Your task to perform on an android device: clear history in the chrome app Image 0: 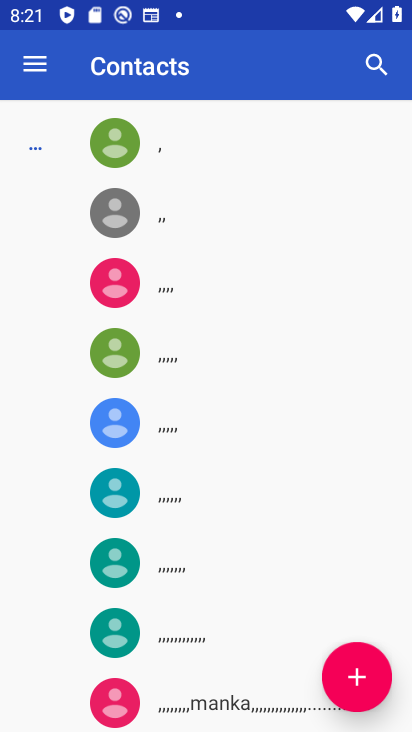
Step 0: drag from (368, 615) to (357, 77)
Your task to perform on an android device: clear history in the chrome app Image 1: 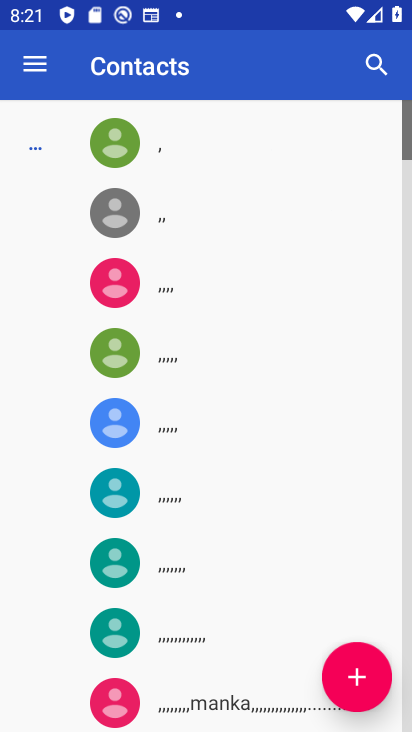
Step 1: press home button
Your task to perform on an android device: clear history in the chrome app Image 2: 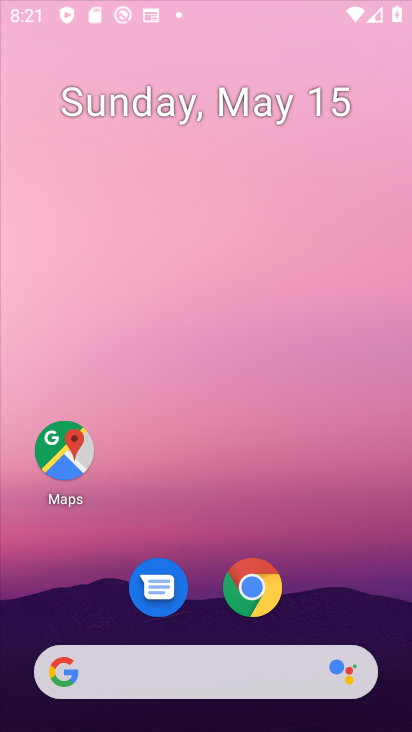
Step 2: drag from (323, 631) to (233, 65)
Your task to perform on an android device: clear history in the chrome app Image 3: 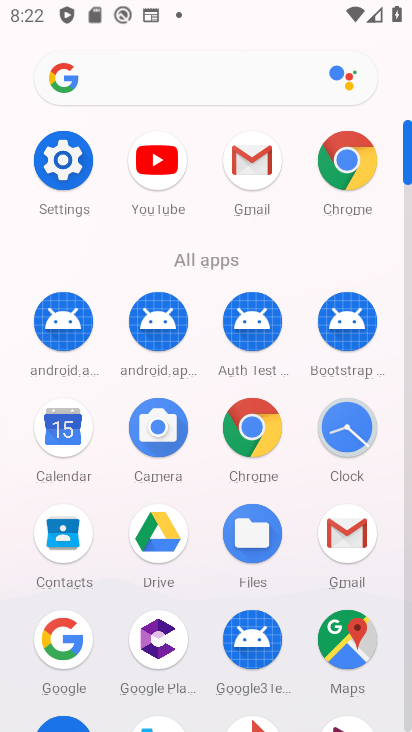
Step 3: click (342, 172)
Your task to perform on an android device: clear history in the chrome app Image 4: 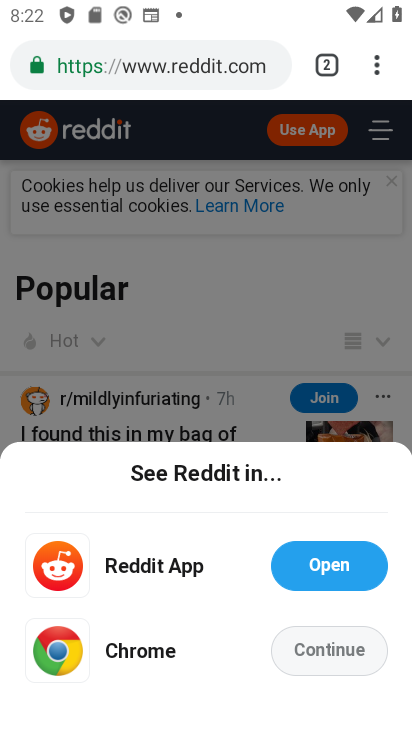
Step 4: press back button
Your task to perform on an android device: clear history in the chrome app Image 5: 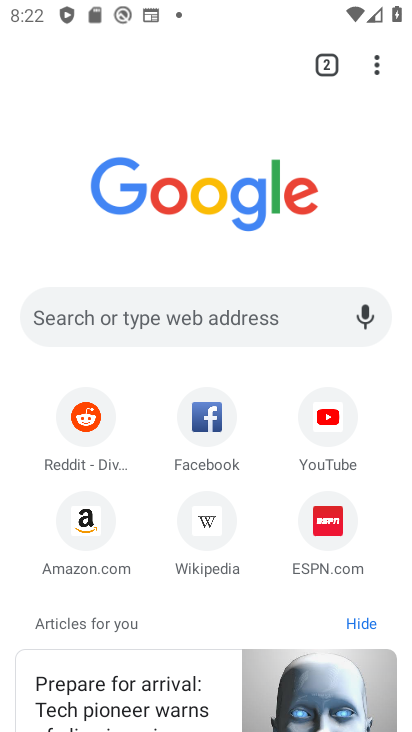
Step 5: click (387, 67)
Your task to perform on an android device: clear history in the chrome app Image 6: 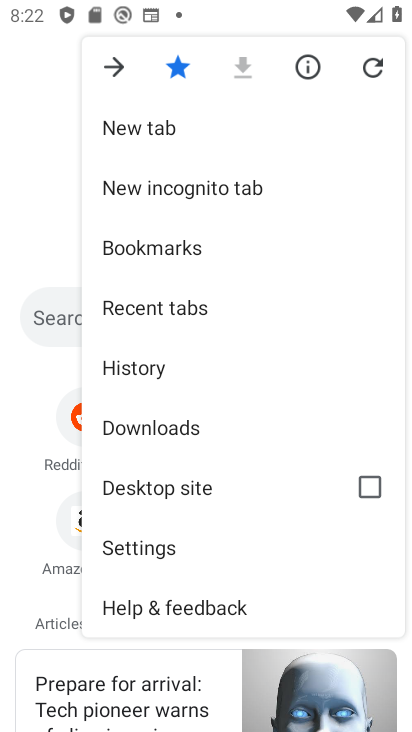
Step 6: click (191, 371)
Your task to perform on an android device: clear history in the chrome app Image 7: 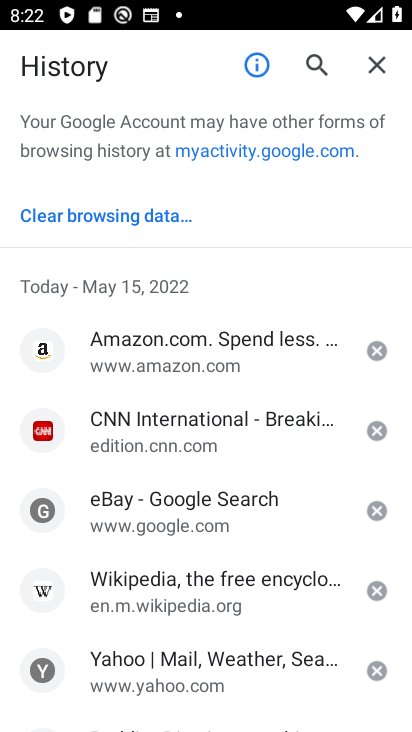
Step 7: click (114, 217)
Your task to perform on an android device: clear history in the chrome app Image 8: 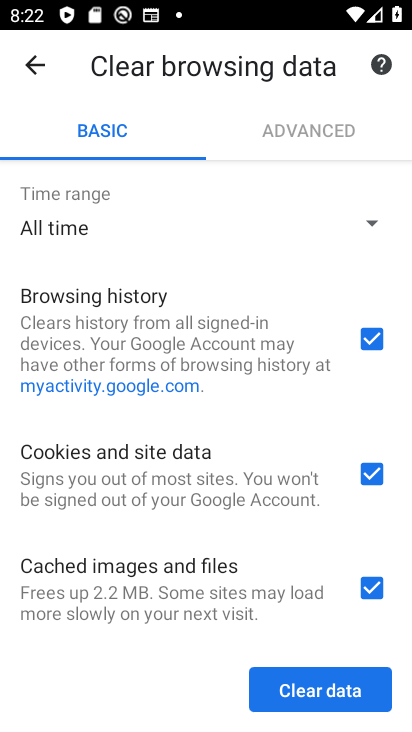
Step 8: click (318, 694)
Your task to perform on an android device: clear history in the chrome app Image 9: 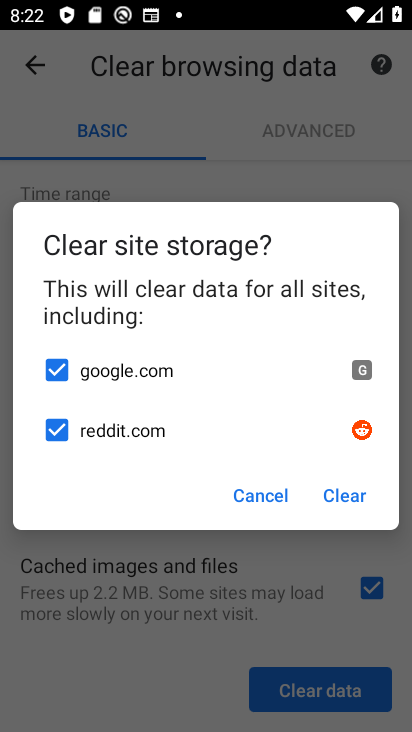
Step 9: click (349, 491)
Your task to perform on an android device: clear history in the chrome app Image 10: 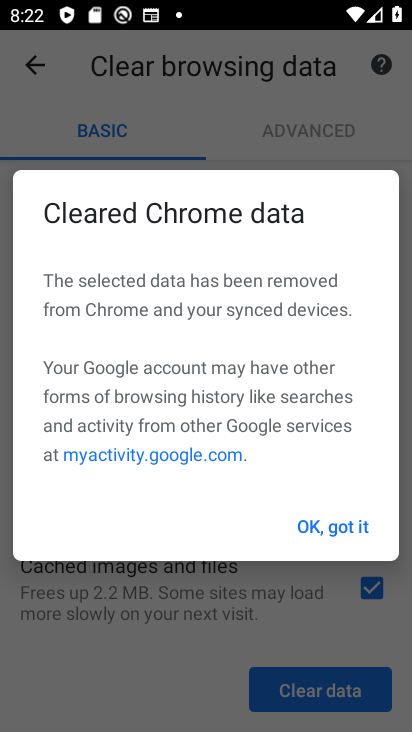
Step 10: click (355, 533)
Your task to perform on an android device: clear history in the chrome app Image 11: 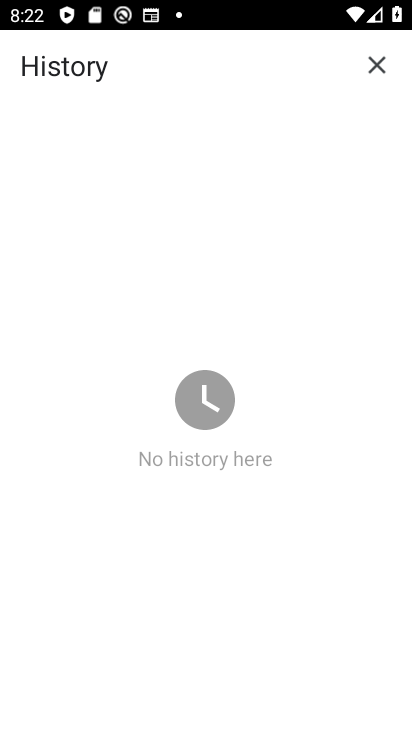
Step 11: task complete